Your task to perform on an android device: allow cookies in the chrome app Image 0: 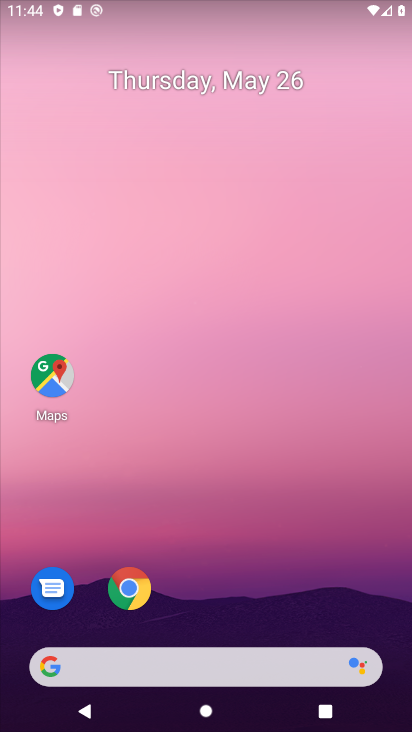
Step 0: click (135, 597)
Your task to perform on an android device: allow cookies in the chrome app Image 1: 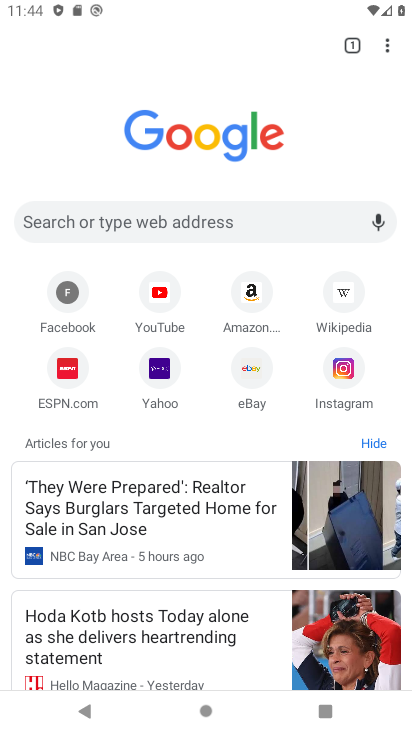
Step 1: click (383, 52)
Your task to perform on an android device: allow cookies in the chrome app Image 2: 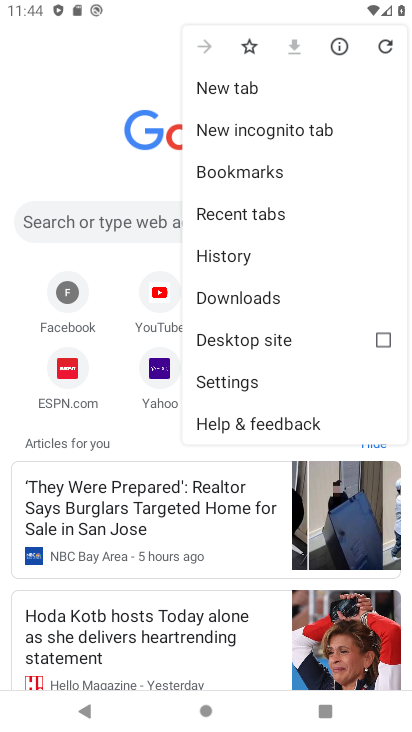
Step 2: click (230, 373)
Your task to perform on an android device: allow cookies in the chrome app Image 3: 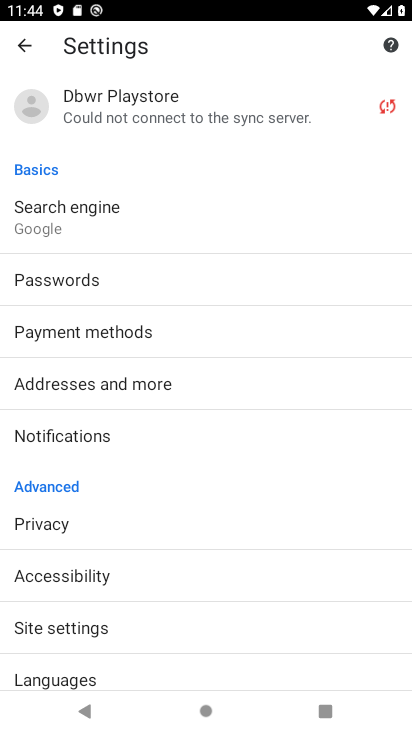
Step 3: click (62, 529)
Your task to perform on an android device: allow cookies in the chrome app Image 4: 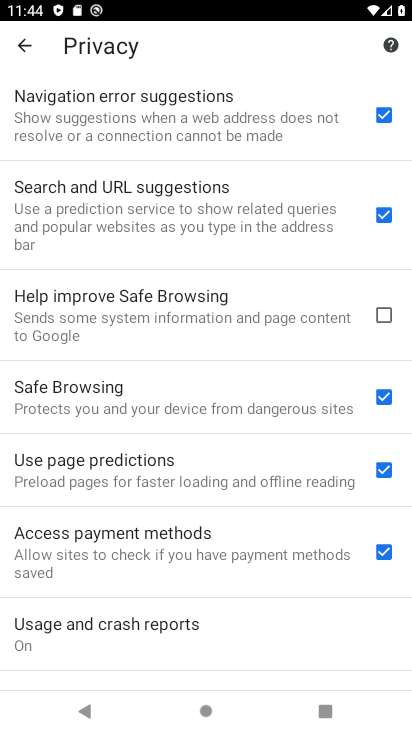
Step 4: click (16, 24)
Your task to perform on an android device: allow cookies in the chrome app Image 5: 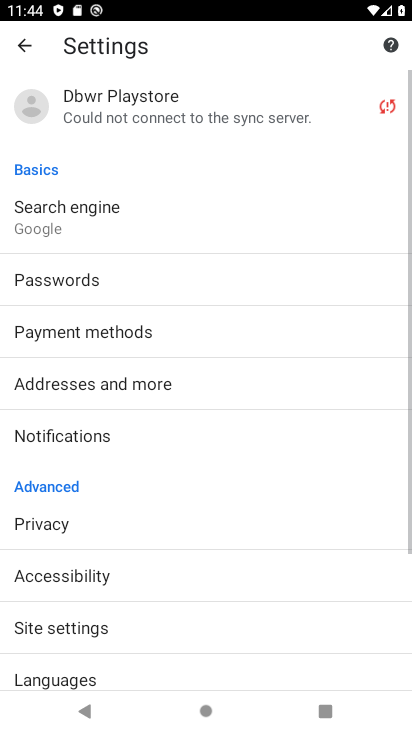
Step 5: click (90, 620)
Your task to perform on an android device: allow cookies in the chrome app Image 6: 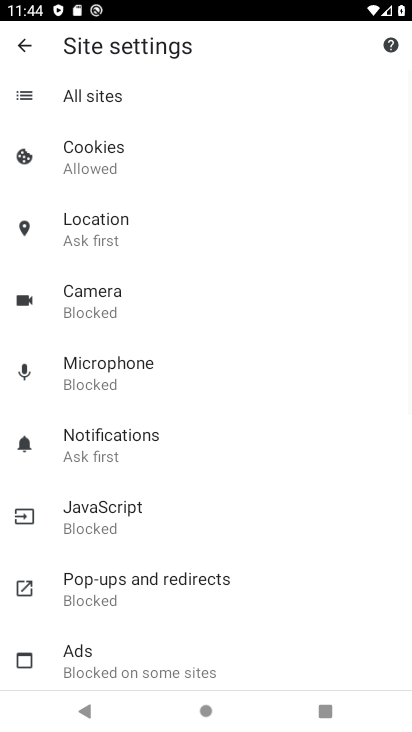
Step 6: click (93, 311)
Your task to perform on an android device: allow cookies in the chrome app Image 7: 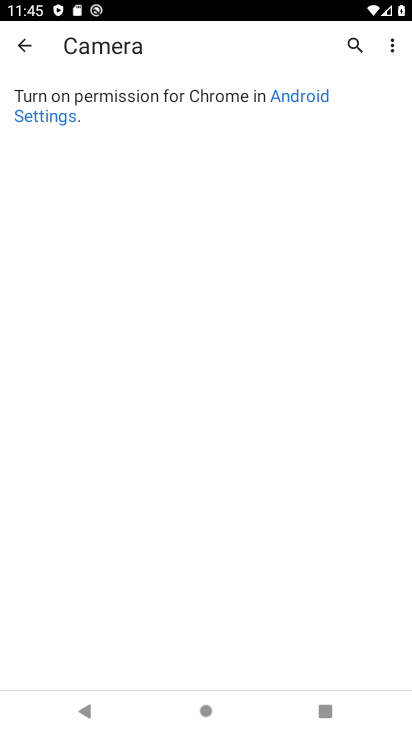
Step 7: click (11, 54)
Your task to perform on an android device: allow cookies in the chrome app Image 8: 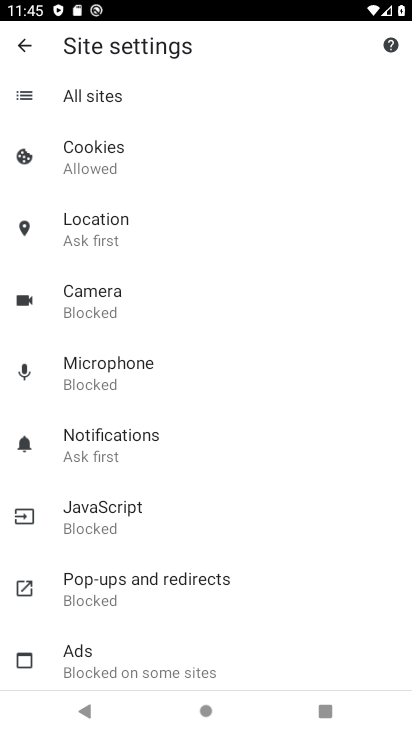
Step 8: click (84, 172)
Your task to perform on an android device: allow cookies in the chrome app Image 9: 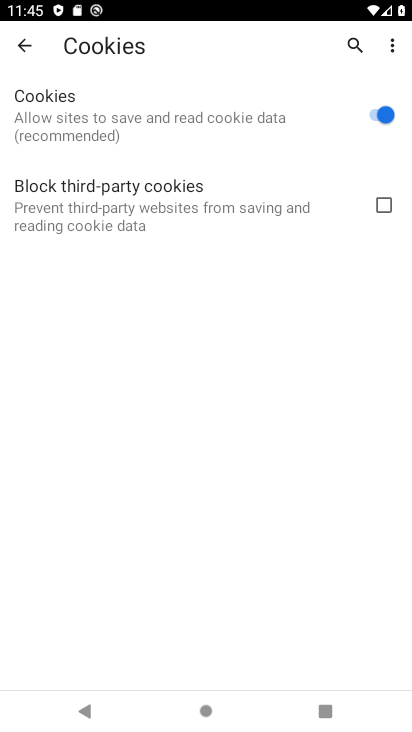
Step 9: task complete